Your task to perform on an android device: turn on the 12-hour format for clock Image 0: 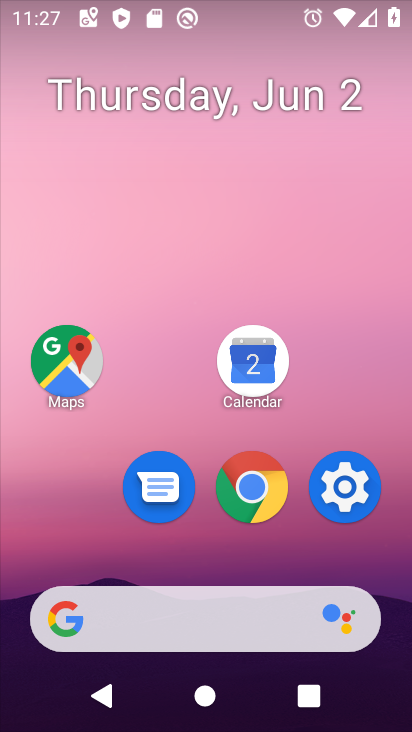
Step 0: drag from (251, 659) to (246, 115)
Your task to perform on an android device: turn on the 12-hour format for clock Image 1: 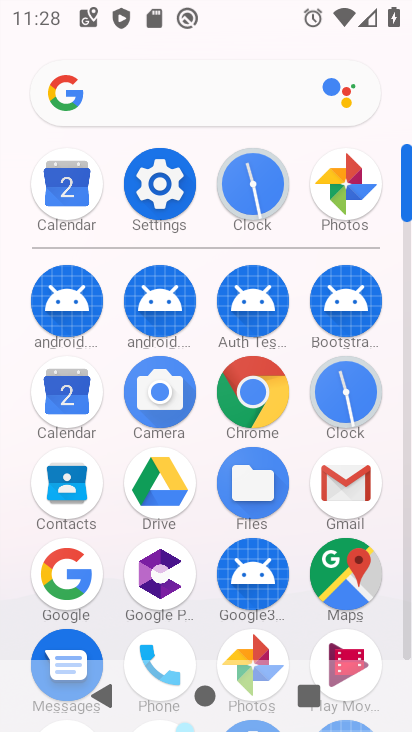
Step 1: click (336, 393)
Your task to perform on an android device: turn on the 12-hour format for clock Image 2: 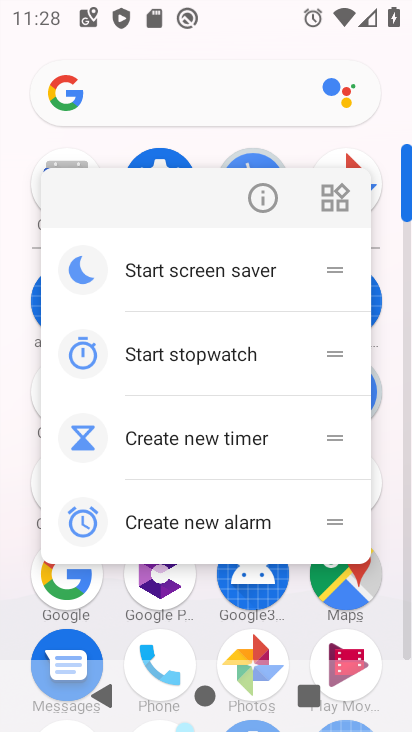
Step 2: click (267, 158)
Your task to perform on an android device: turn on the 12-hour format for clock Image 3: 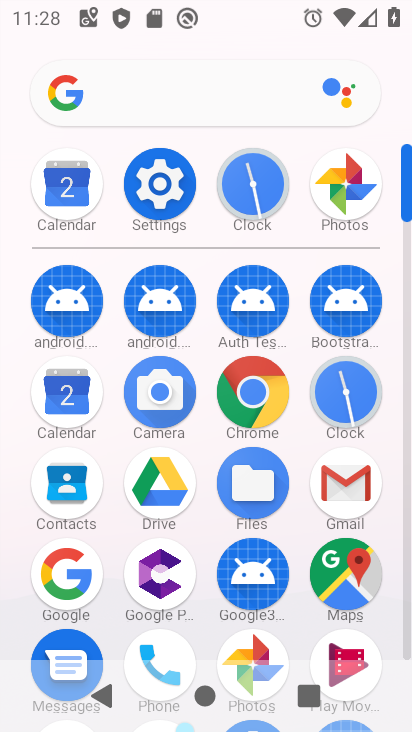
Step 3: click (268, 197)
Your task to perform on an android device: turn on the 12-hour format for clock Image 4: 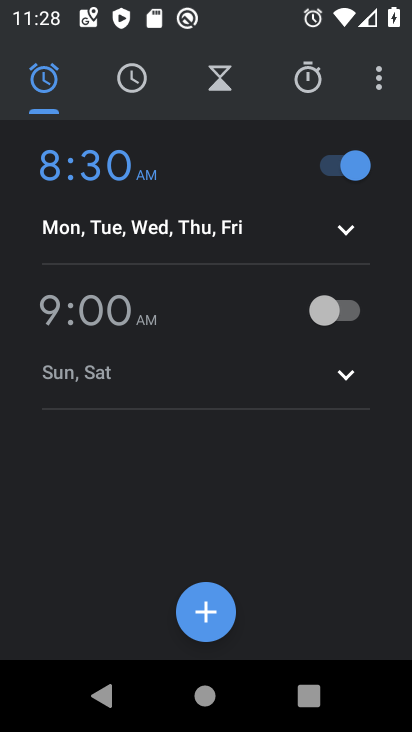
Step 4: click (374, 78)
Your task to perform on an android device: turn on the 12-hour format for clock Image 5: 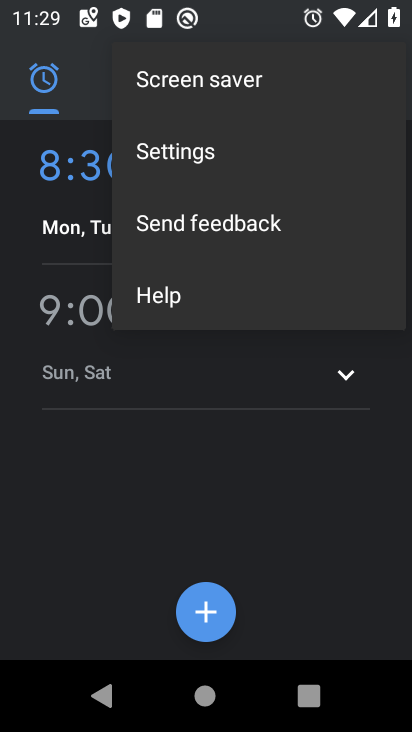
Step 5: click (158, 149)
Your task to perform on an android device: turn on the 12-hour format for clock Image 6: 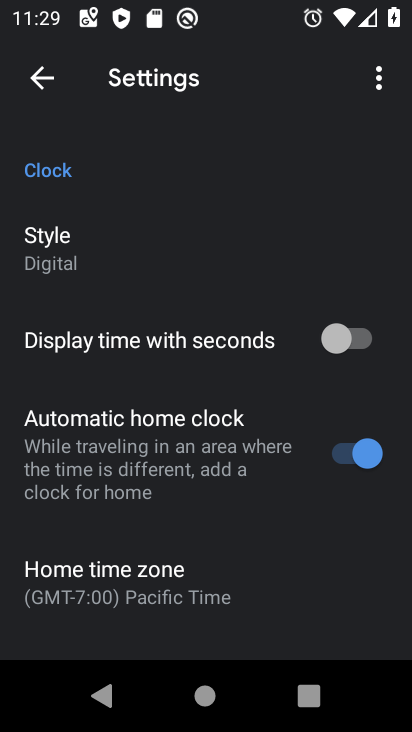
Step 6: drag from (140, 548) to (168, 382)
Your task to perform on an android device: turn on the 12-hour format for clock Image 7: 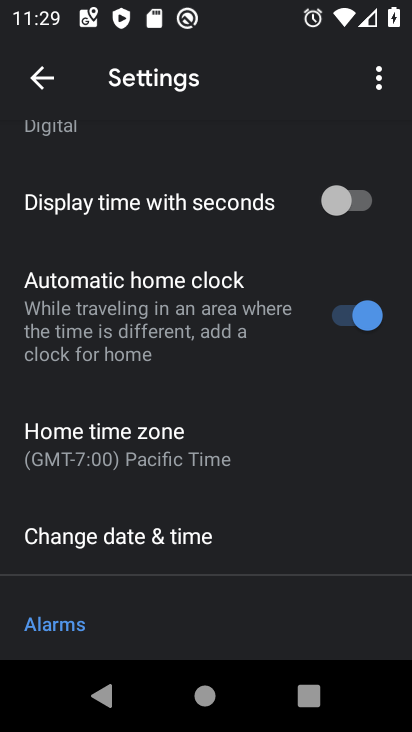
Step 7: click (90, 524)
Your task to perform on an android device: turn on the 12-hour format for clock Image 8: 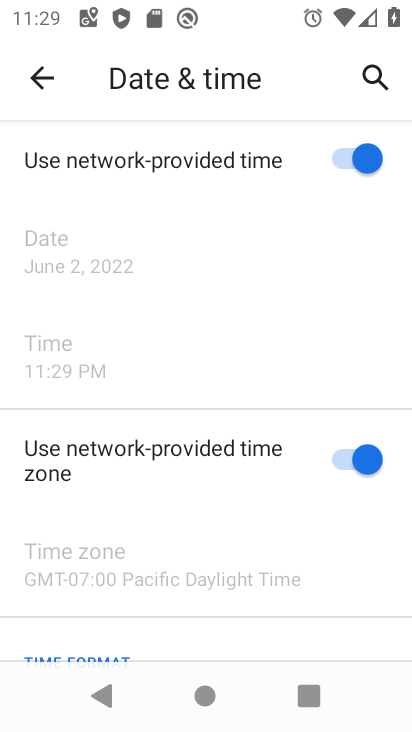
Step 8: drag from (176, 570) to (247, 239)
Your task to perform on an android device: turn on the 12-hour format for clock Image 9: 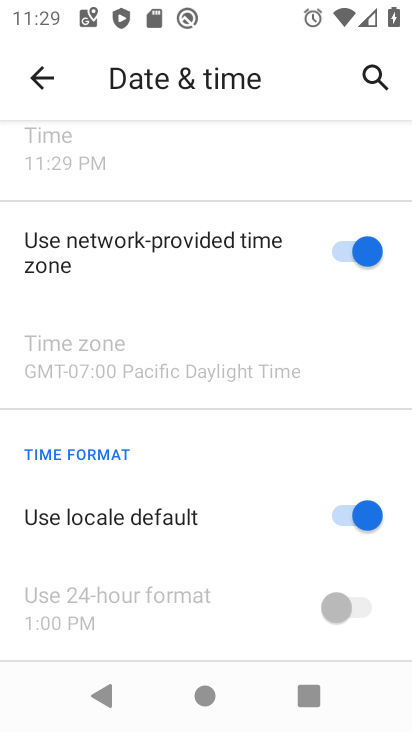
Step 9: click (352, 509)
Your task to perform on an android device: turn on the 12-hour format for clock Image 10: 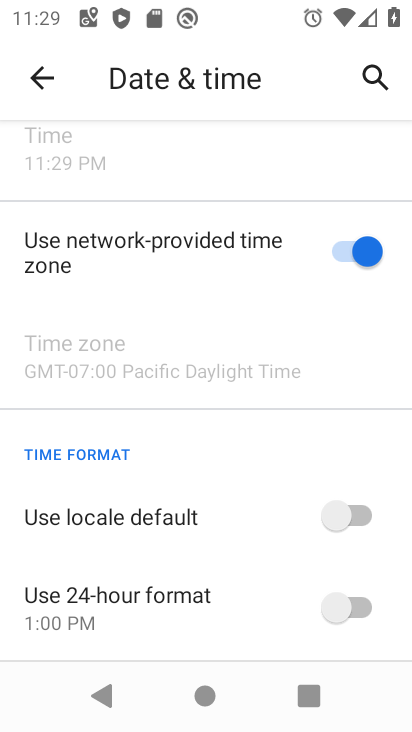
Step 10: click (357, 607)
Your task to perform on an android device: turn on the 12-hour format for clock Image 11: 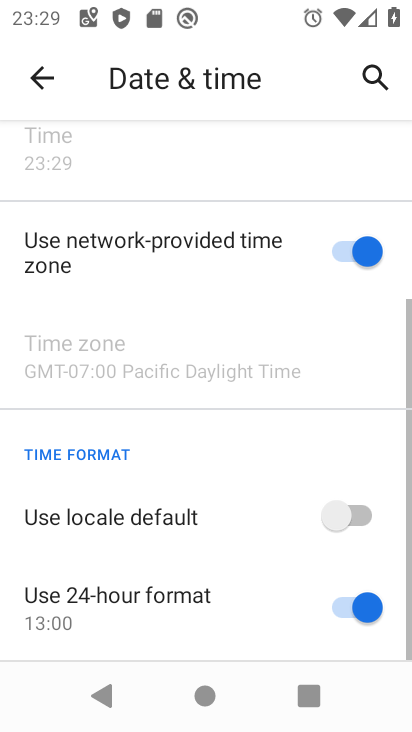
Step 11: click (357, 607)
Your task to perform on an android device: turn on the 12-hour format for clock Image 12: 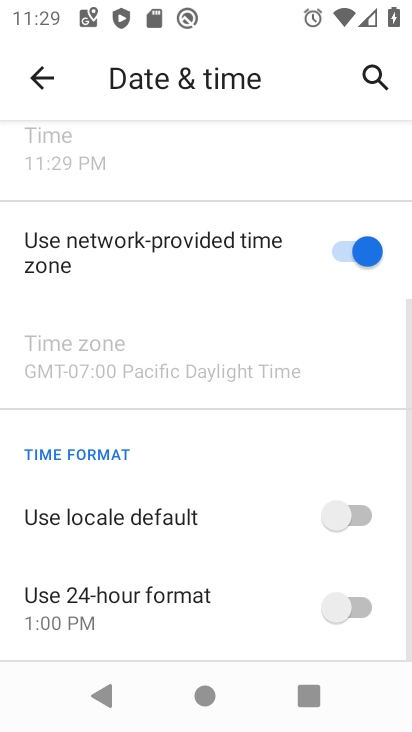
Step 12: task complete